Your task to perform on an android device: View the shopping cart on bestbuy. Search for apple airpods on bestbuy, select the first entry, add it to the cart, then select checkout. Image 0: 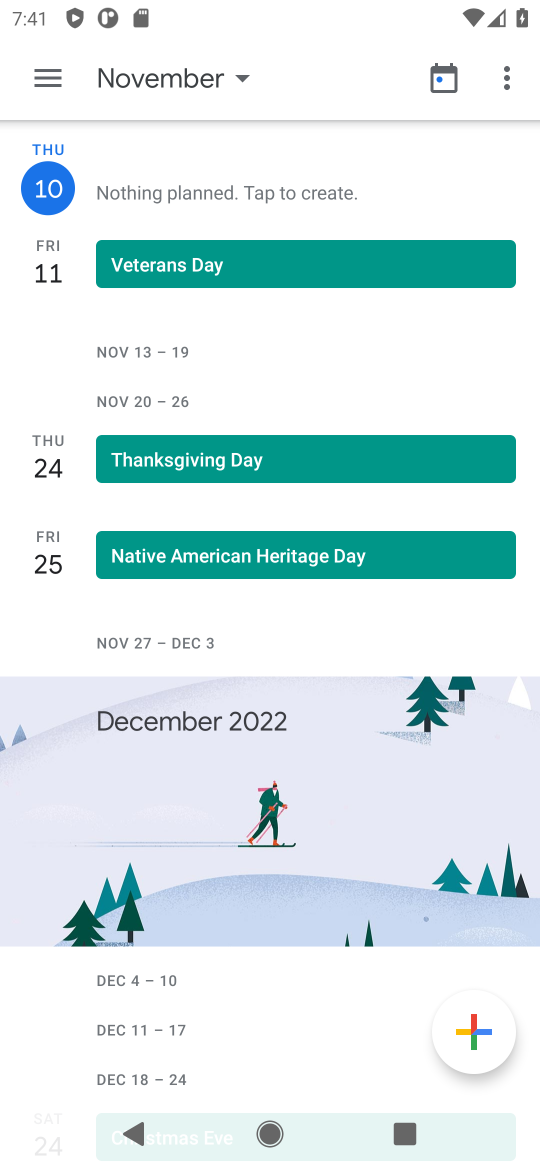
Step 0: press home button
Your task to perform on an android device: View the shopping cart on bestbuy. Search for apple airpods on bestbuy, select the first entry, add it to the cart, then select checkout. Image 1: 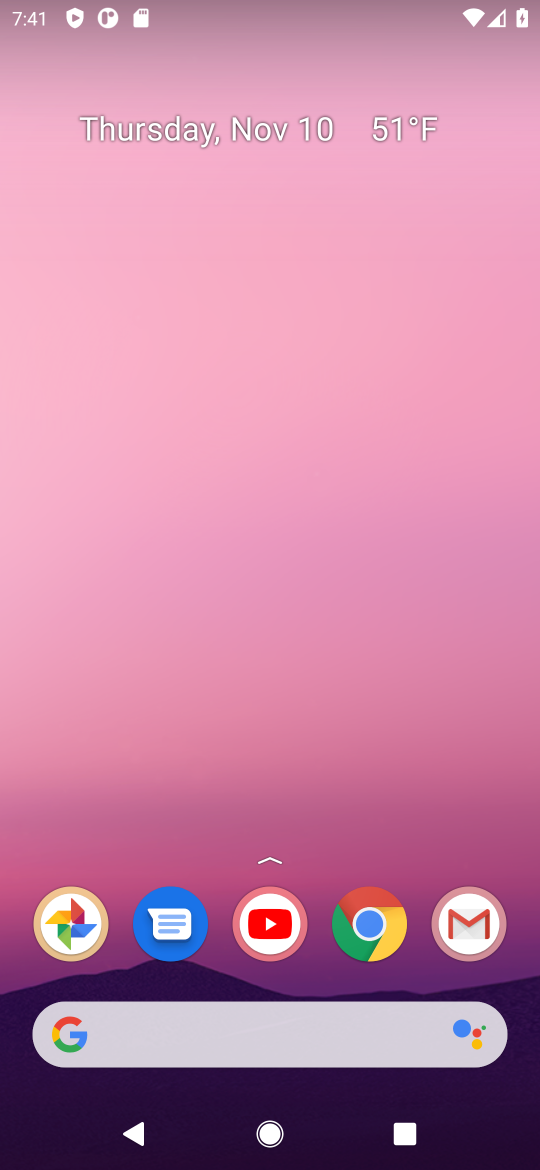
Step 1: click (375, 930)
Your task to perform on an android device: View the shopping cart on bestbuy. Search for apple airpods on bestbuy, select the first entry, add it to the cart, then select checkout. Image 2: 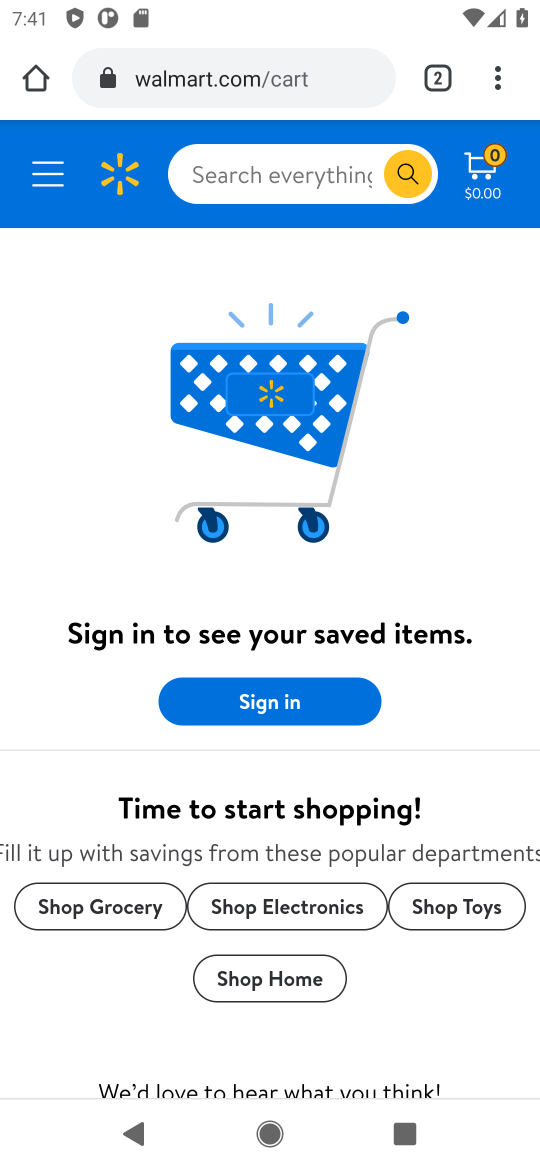
Step 2: click (250, 87)
Your task to perform on an android device: View the shopping cart on bestbuy. Search for apple airpods on bestbuy, select the first entry, add it to the cart, then select checkout. Image 3: 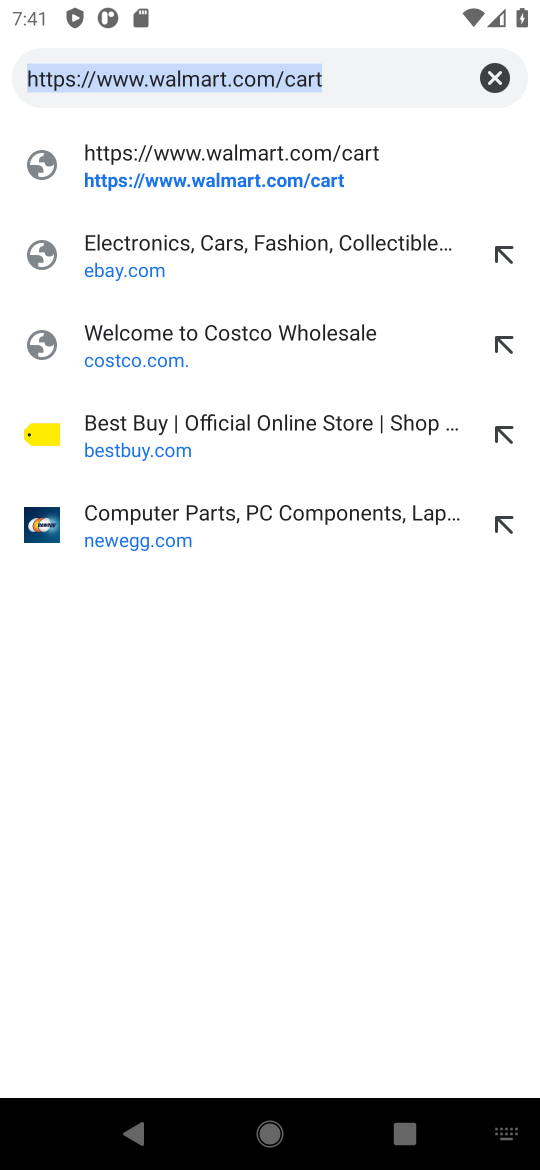
Step 3: click (109, 450)
Your task to perform on an android device: View the shopping cart on bestbuy. Search for apple airpods on bestbuy, select the first entry, add it to the cart, then select checkout. Image 4: 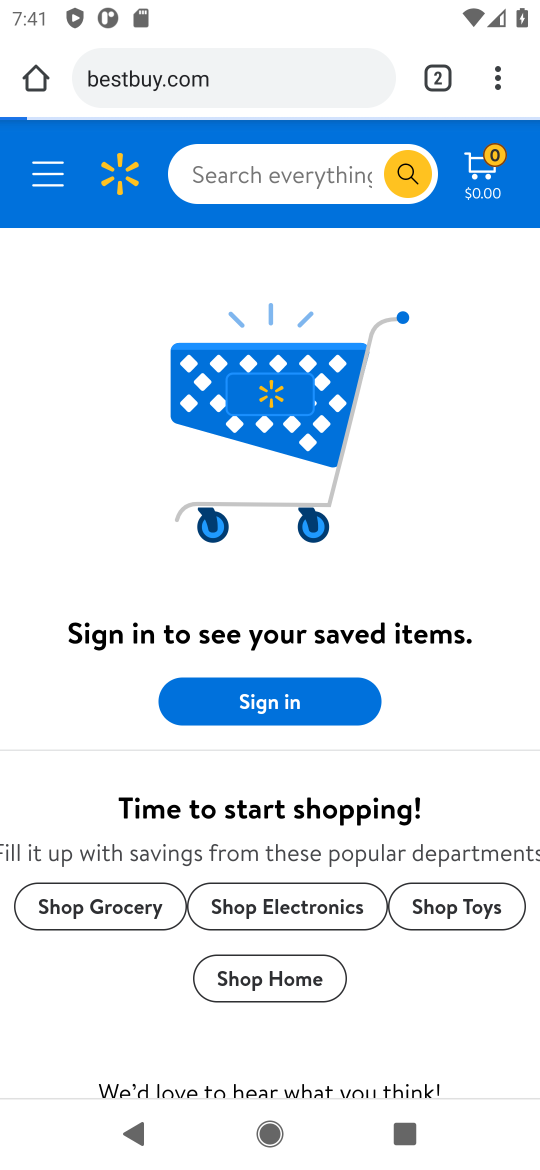
Step 4: click (487, 172)
Your task to perform on an android device: View the shopping cart on bestbuy. Search for apple airpods on bestbuy, select the first entry, add it to the cart, then select checkout. Image 5: 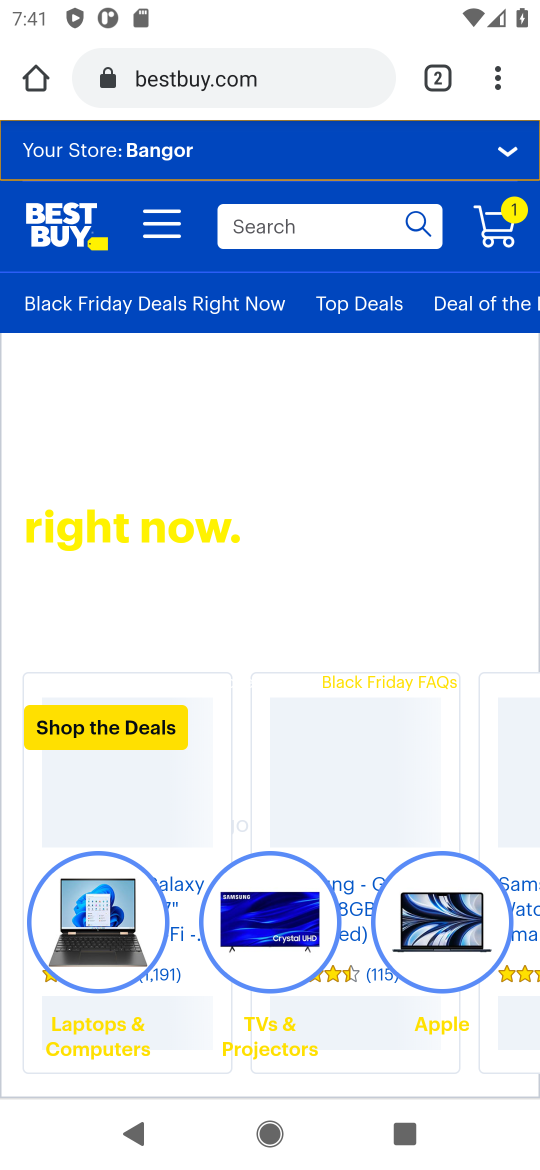
Step 5: click (251, 237)
Your task to perform on an android device: View the shopping cart on bestbuy. Search for apple airpods on bestbuy, select the first entry, add it to the cart, then select checkout. Image 6: 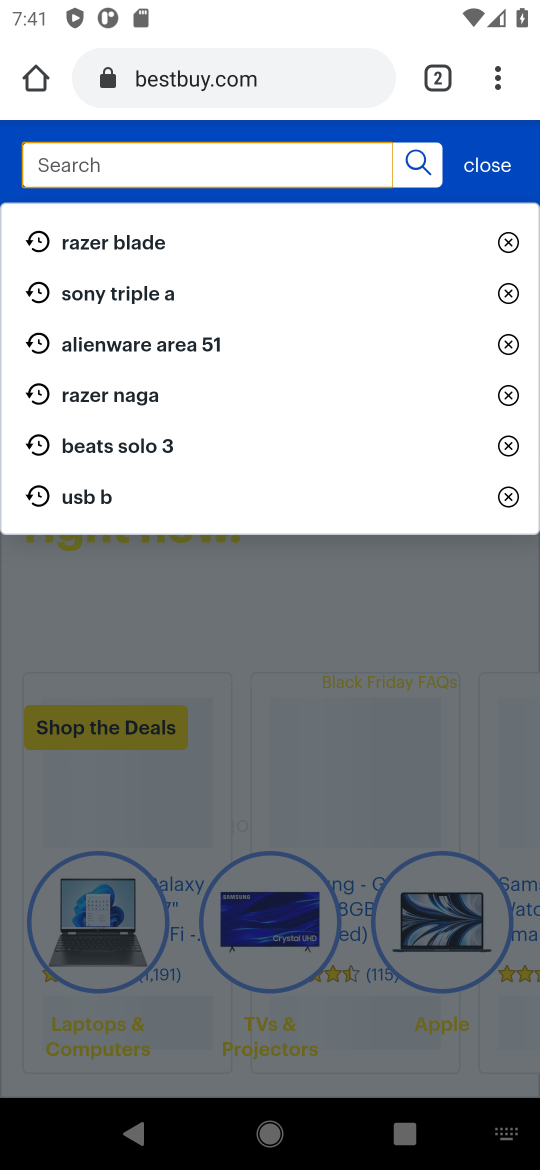
Step 6: type "apple airpods"
Your task to perform on an android device: View the shopping cart on bestbuy. Search for apple airpods on bestbuy, select the first entry, add it to the cart, then select checkout. Image 7: 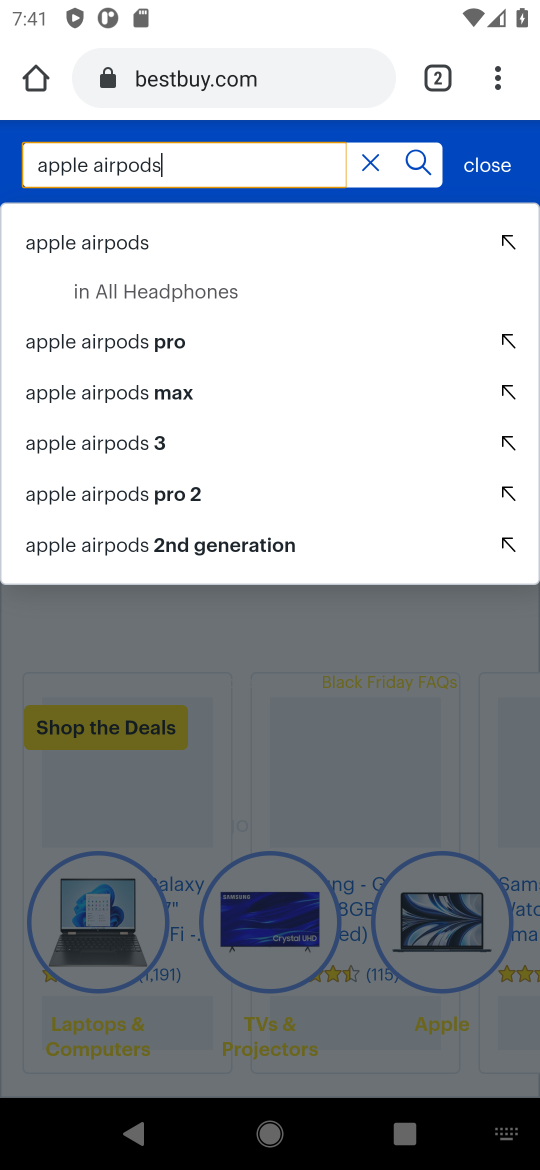
Step 7: click (111, 243)
Your task to perform on an android device: View the shopping cart on bestbuy. Search for apple airpods on bestbuy, select the first entry, add it to the cart, then select checkout. Image 8: 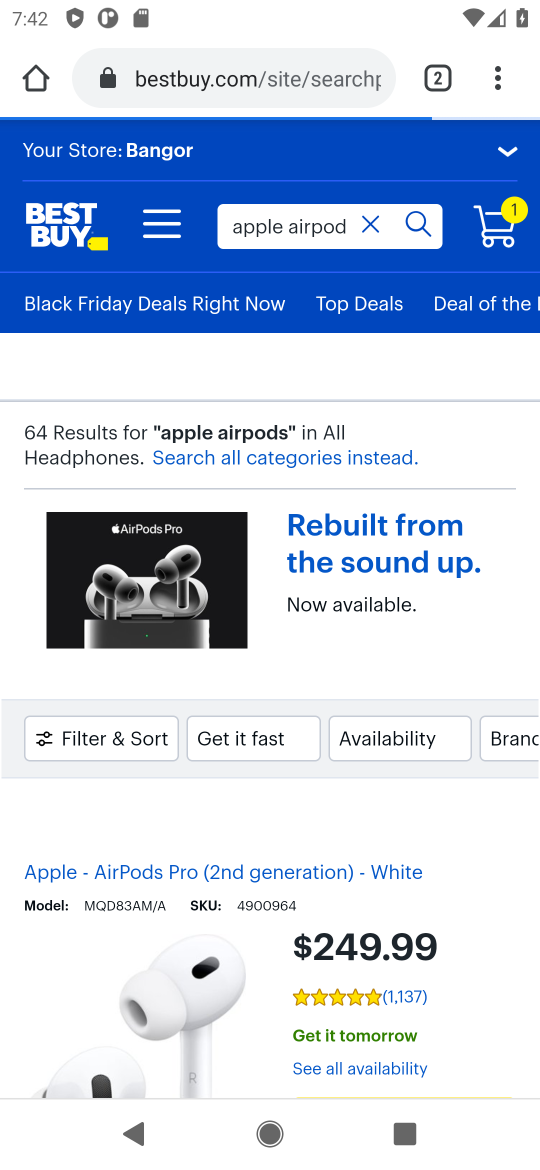
Step 8: drag from (139, 963) to (119, 584)
Your task to perform on an android device: View the shopping cart on bestbuy. Search for apple airpods on bestbuy, select the first entry, add it to the cart, then select checkout. Image 9: 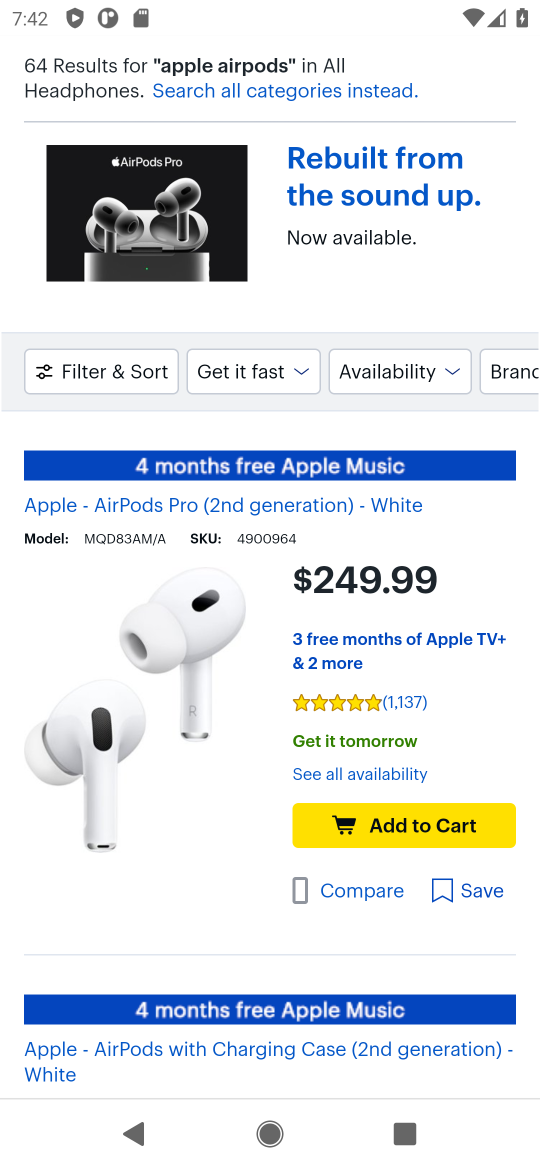
Step 9: click (396, 824)
Your task to perform on an android device: View the shopping cart on bestbuy. Search for apple airpods on bestbuy, select the first entry, add it to the cart, then select checkout. Image 10: 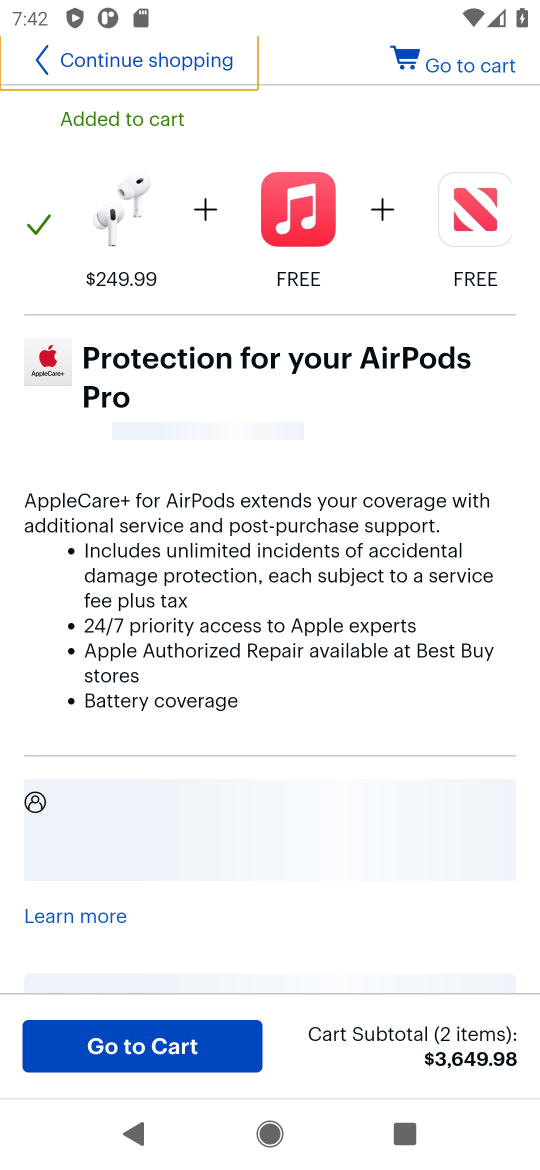
Step 10: click (467, 68)
Your task to perform on an android device: View the shopping cart on bestbuy. Search for apple airpods on bestbuy, select the first entry, add it to the cart, then select checkout. Image 11: 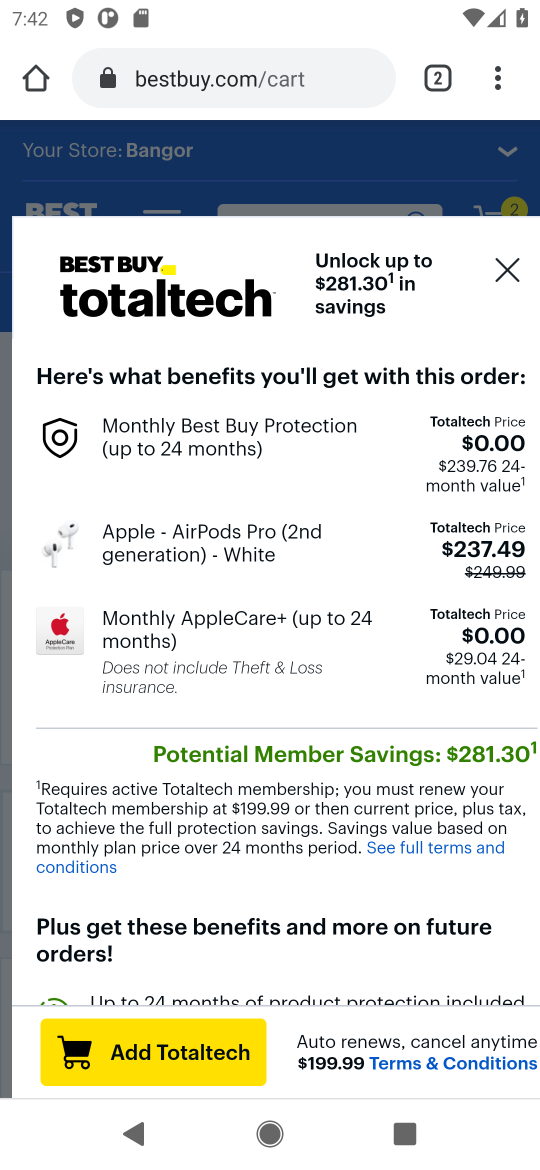
Step 11: click (508, 281)
Your task to perform on an android device: View the shopping cart on bestbuy. Search for apple airpods on bestbuy, select the first entry, add it to the cart, then select checkout. Image 12: 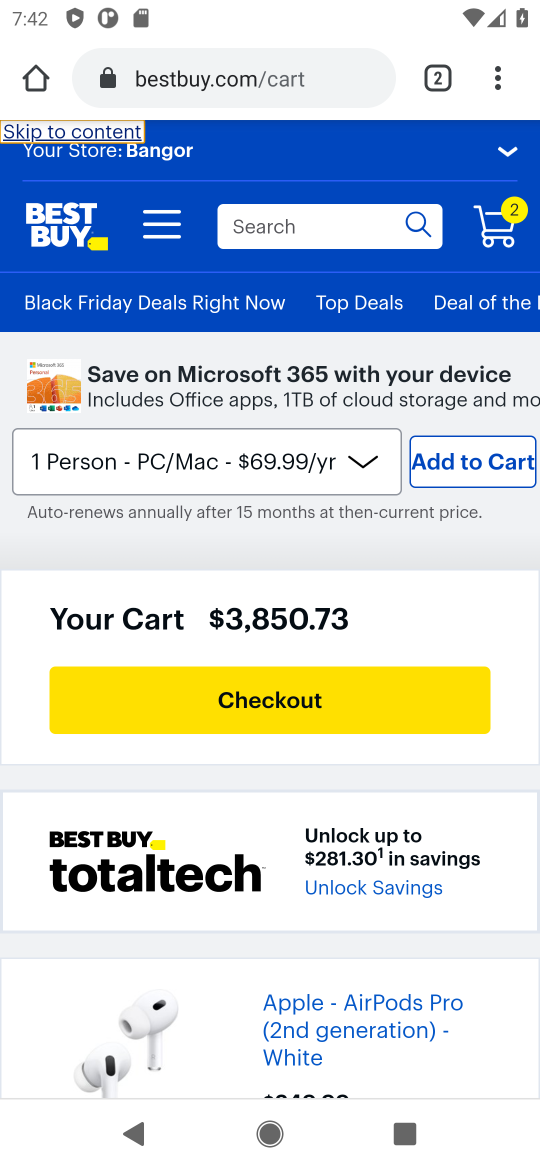
Step 12: click (265, 703)
Your task to perform on an android device: View the shopping cart on bestbuy. Search for apple airpods on bestbuy, select the first entry, add it to the cart, then select checkout. Image 13: 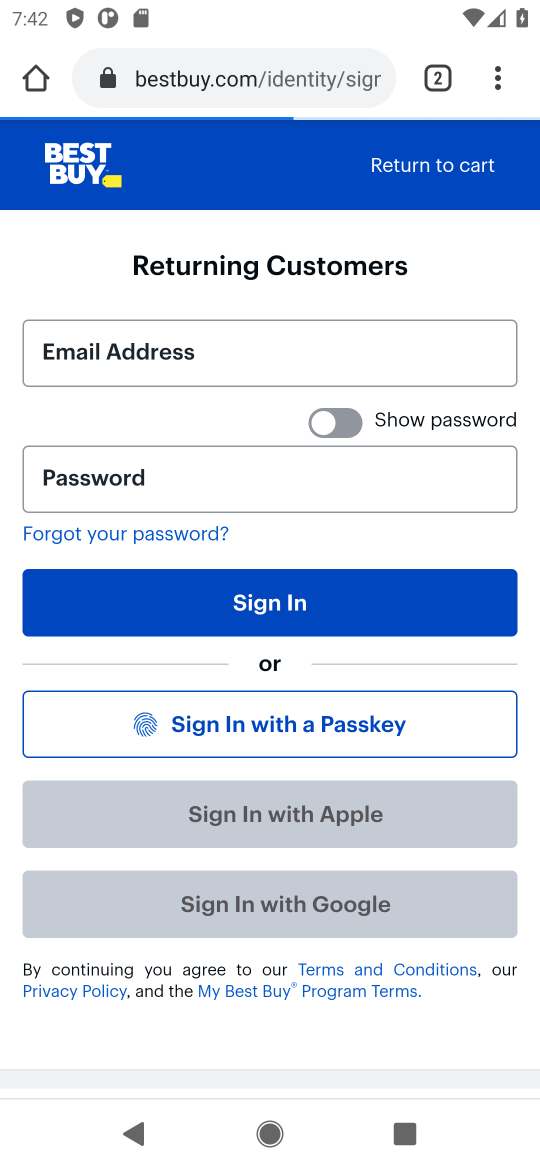
Step 13: task complete